Your task to perform on an android device: Search for Mexican restaurants on Maps Image 0: 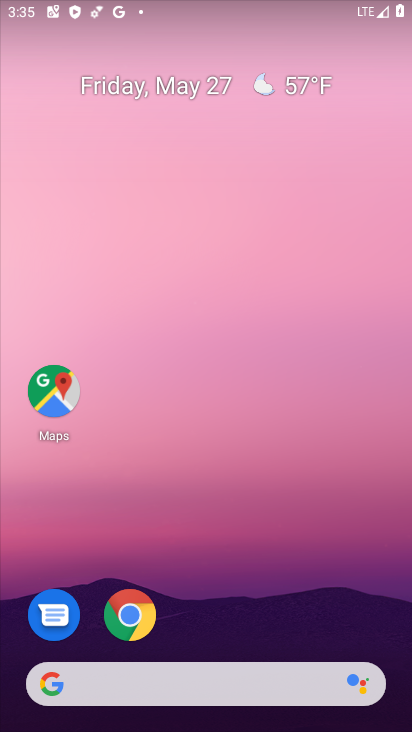
Step 0: click (95, 381)
Your task to perform on an android device: Search for Mexican restaurants on Maps Image 1: 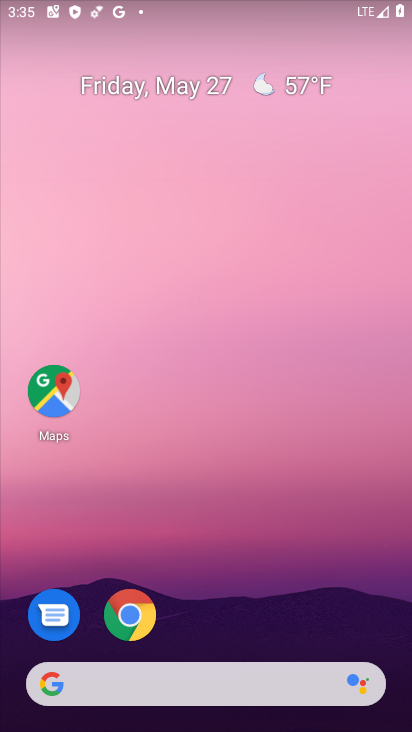
Step 1: click (51, 398)
Your task to perform on an android device: Search for Mexican restaurants on Maps Image 2: 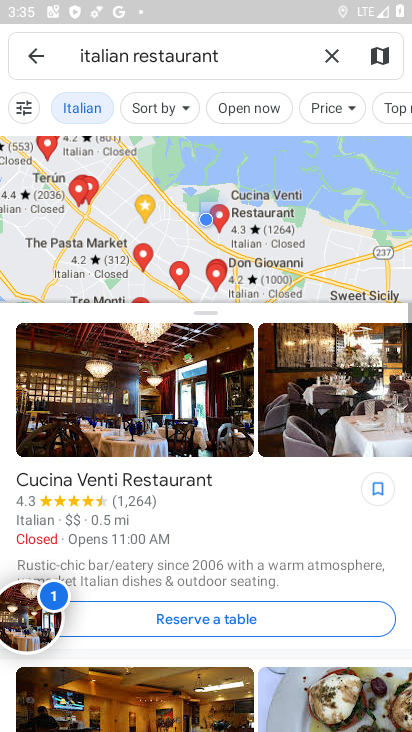
Step 2: click (328, 63)
Your task to perform on an android device: Search for Mexican restaurants on Maps Image 3: 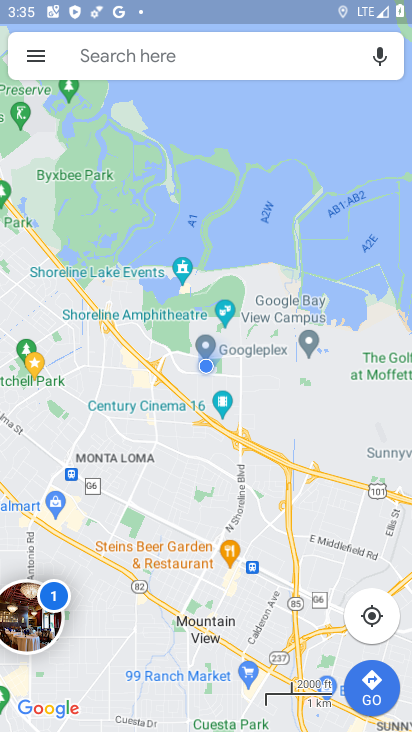
Step 3: click (211, 53)
Your task to perform on an android device: Search for Mexican restaurants on Maps Image 4: 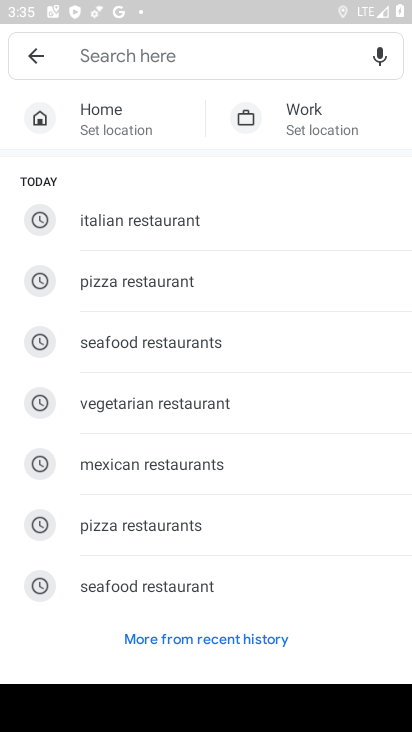
Step 4: click (148, 460)
Your task to perform on an android device: Search for Mexican restaurants on Maps Image 5: 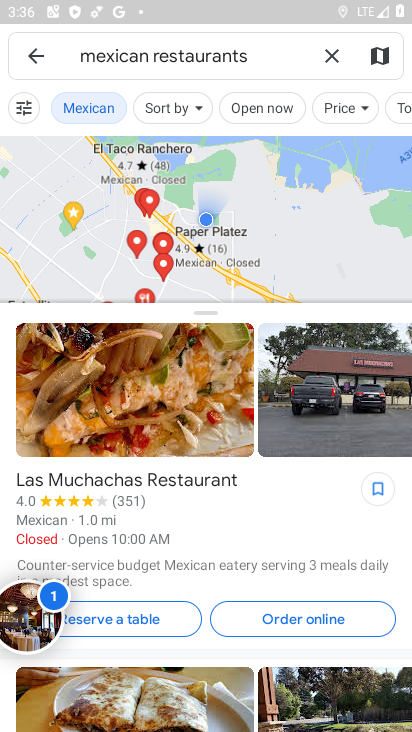
Step 5: task complete